Your task to perform on an android device: Open ESPN.com Image 0: 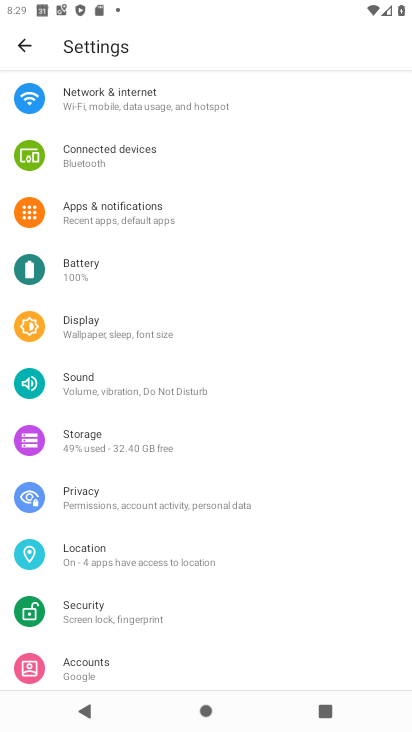
Step 0: press home button
Your task to perform on an android device: Open ESPN.com Image 1: 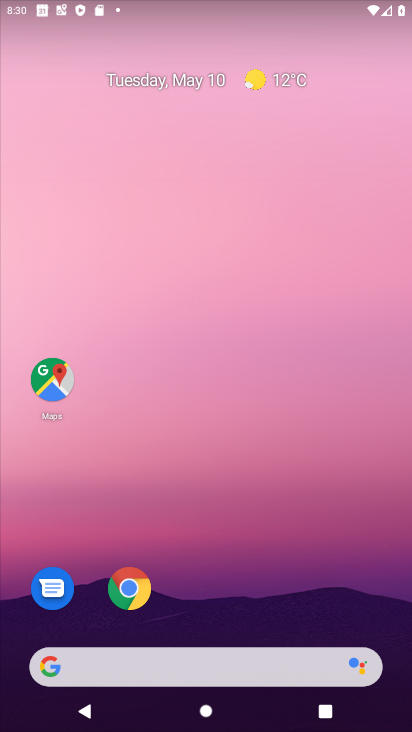
Step 1: click (128, 583)
Your task to perform on an android device: Open ESPN.com Image 2: 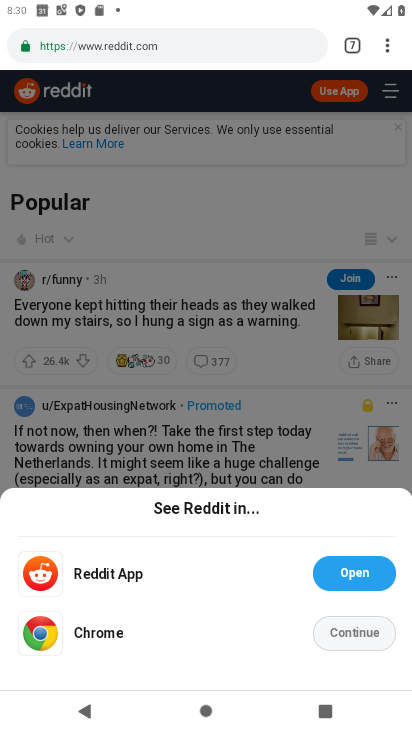
Step 2: click (349, 44)
Your task to perform on an android device: Open ESPN.com Image 3: 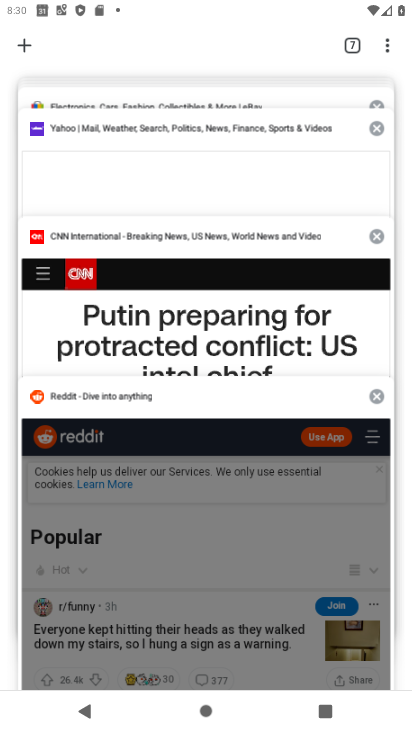
Step 3: click (29, 42)
Your task to perform on an android device: Open ESPN.com Image 4: 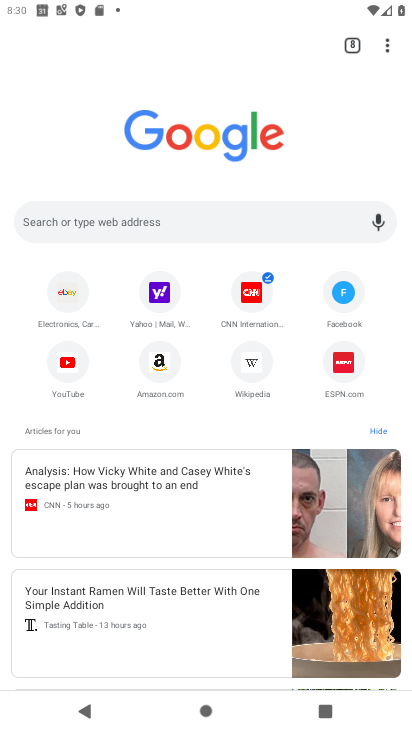
Step 4: click (341, 377)
Your task to perform on an android device: Open ESPN.com Image 5: 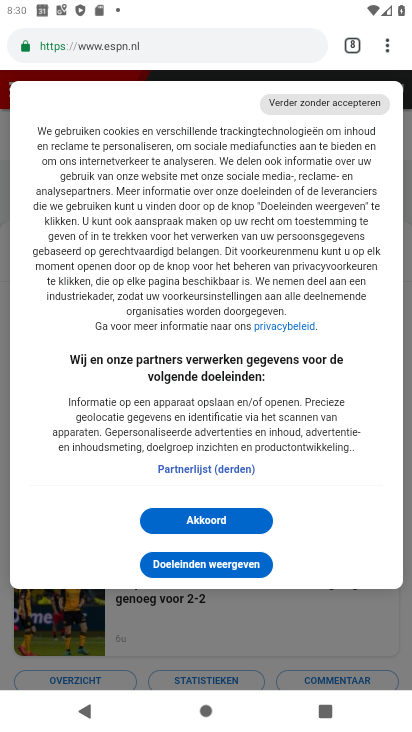
Step 5: task complete